Your task to perform on an android device: turn on data saver in the chrome app Image 0: 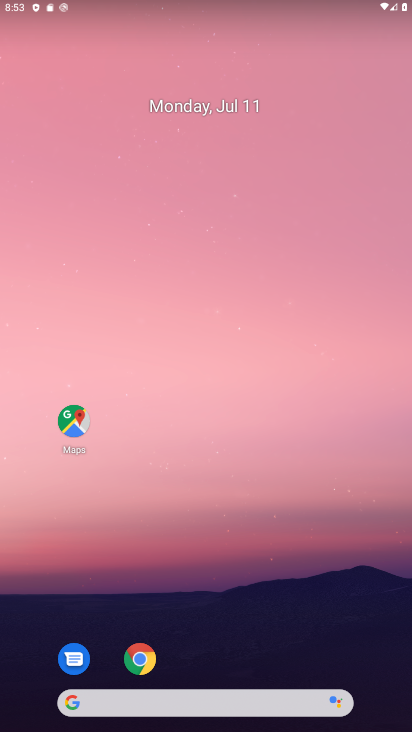
Step 0: drag from (243, 720) to (230, 202)
Your task to perform on an android device: turn on data saver in the chrome app Image 1: 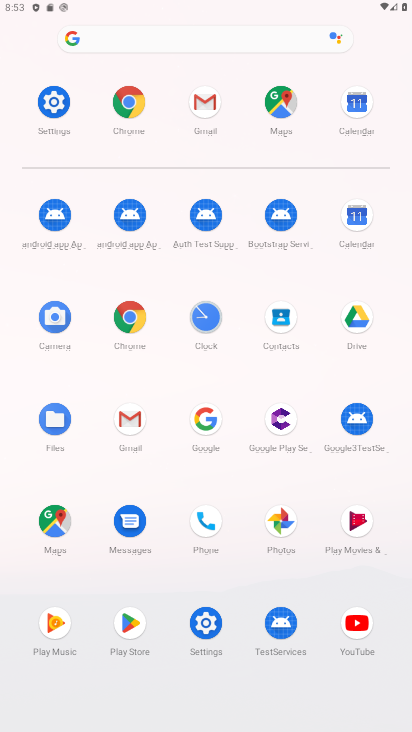
Step 1: click (128, 319)
Your task to perform on an android device: turn on data saver in the chrome app Image 2: 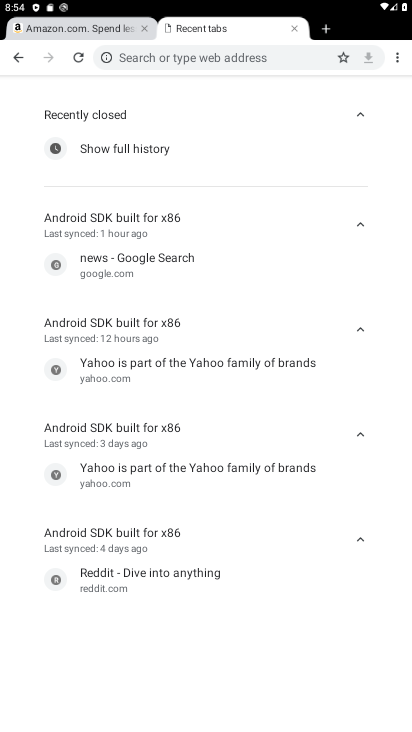
Step 2: click (397, 62)
Your task to perform on an android device: turn on data saver in the chrome app Image 3: 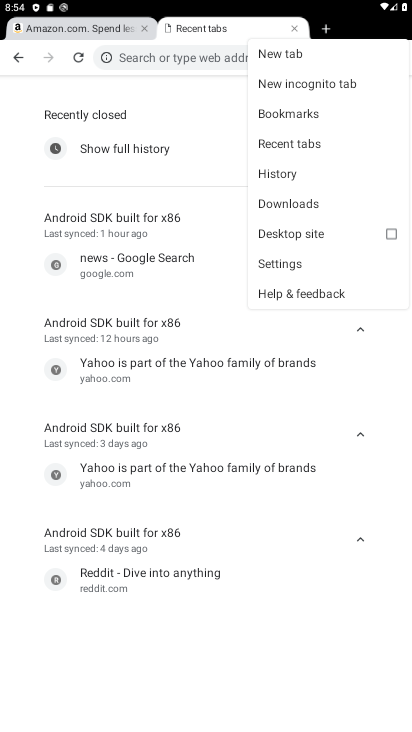
Step 3: click (282, 260)
Your task to perform on an android device: turn on data saver in the chrome app Image 4: 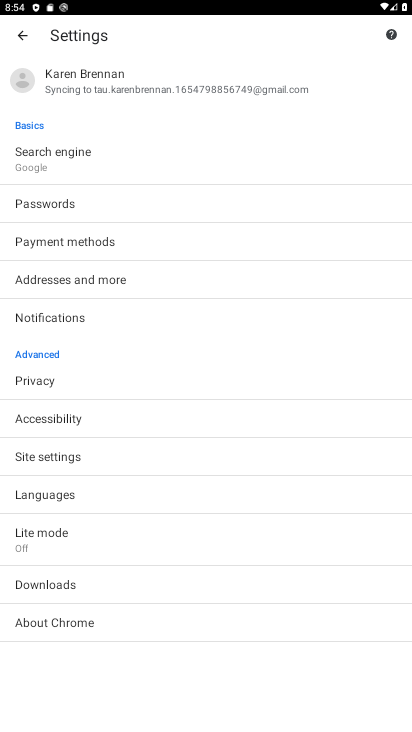
Step 4: click (54, 534)
Your task to perform on an android device: turn on data saver in the chrome app Image 5: 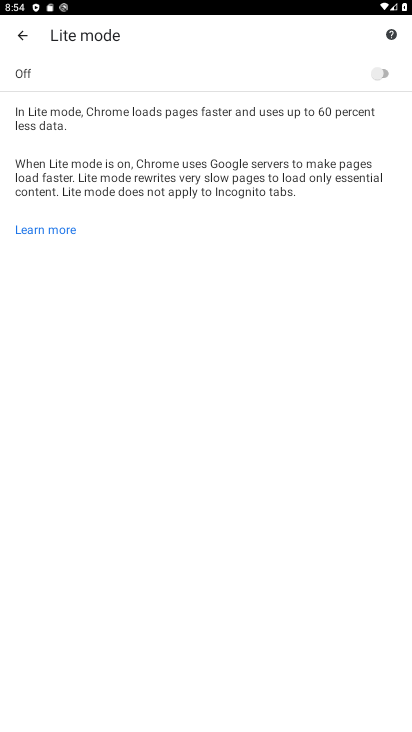
Step 5: click (387, 70)
Your task to perform on an android device: turn on data saver in the chrome app Image 6: 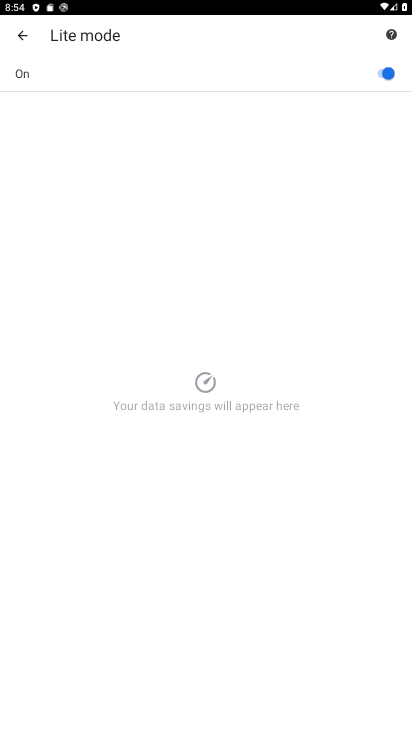
Step 6: task complete